Your task to perform on an android device: Go to Google Image 0: 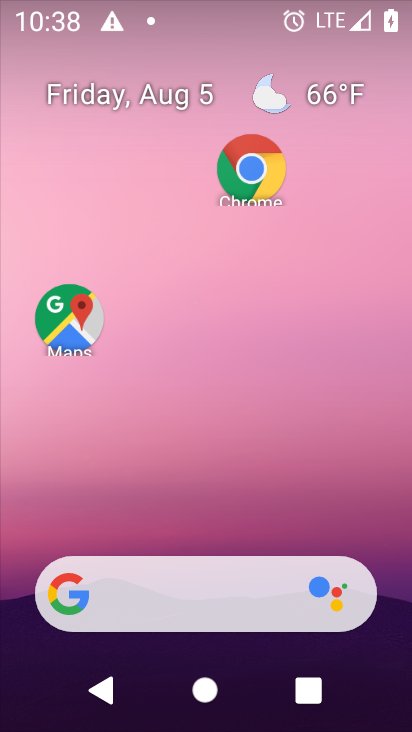
Step 0: drag from (146, 296) to (128, 145)
Your task to perform on an android device: Go to Google Image 1: 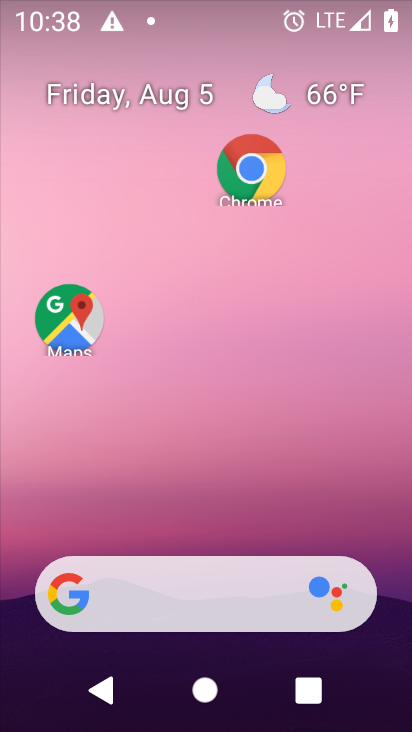
Step 1: drag from (186, 512) to (150, 142)
Your task to perform on an android device: Go to Google Image 2: 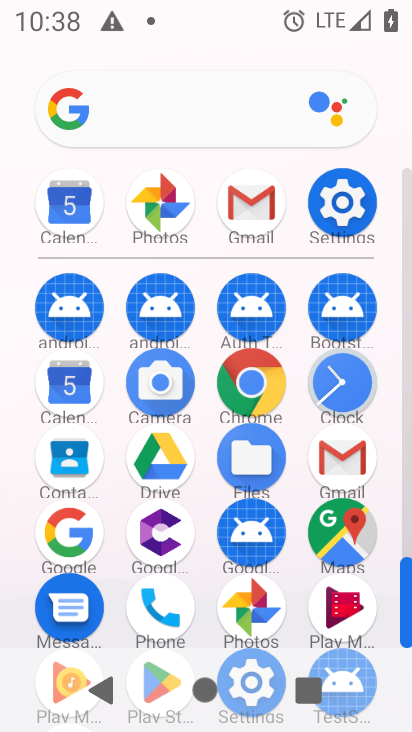
Step 2: click (79, 538)
Your task to perform on an android device: Go to Google Image 3: 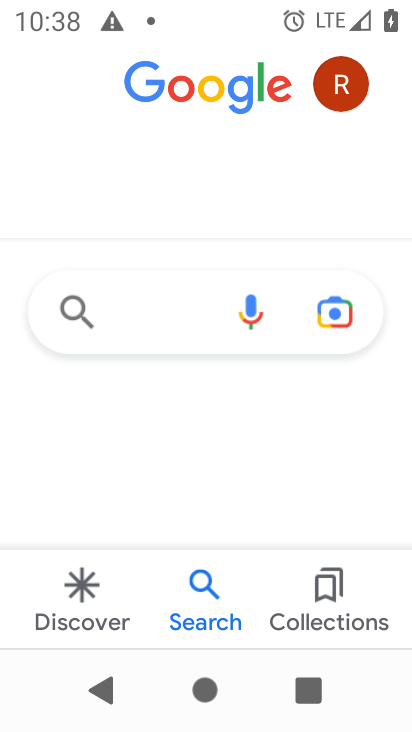
Step 3: task complete